Your task to perform on an android device: change your default location settings in chrome Image 0: 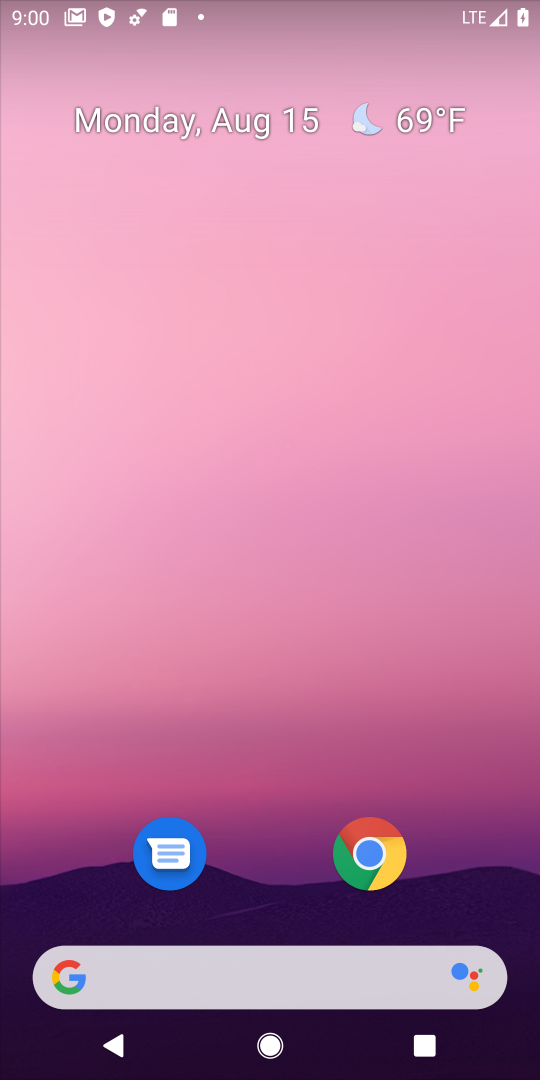
Step 0: press home button
Your task to perform on an android device: change your default location settings in chrome Image 1: 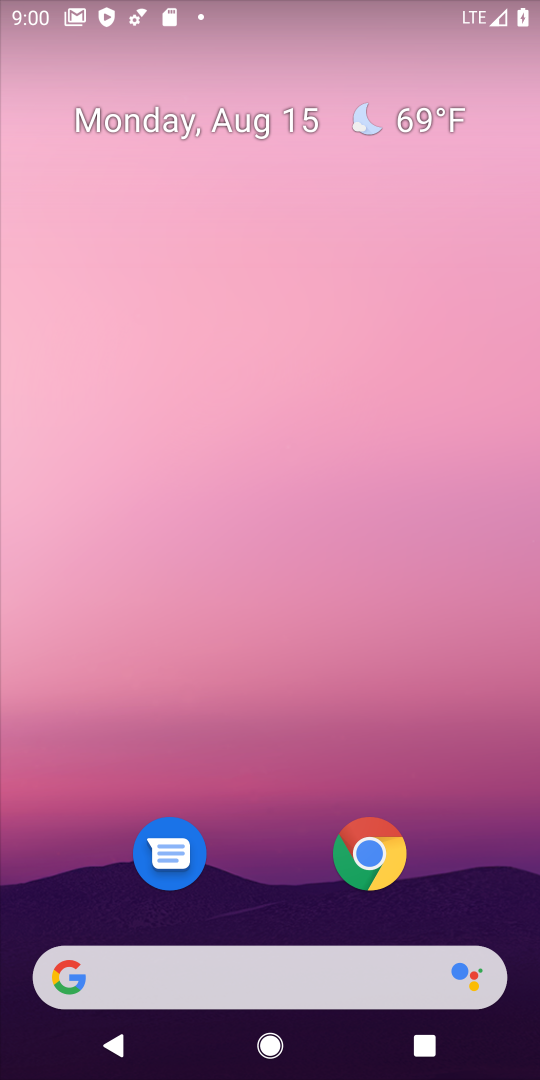
Step 1: press home button
Your task to perform on an android device: change your default location settings in chrome Image 2: 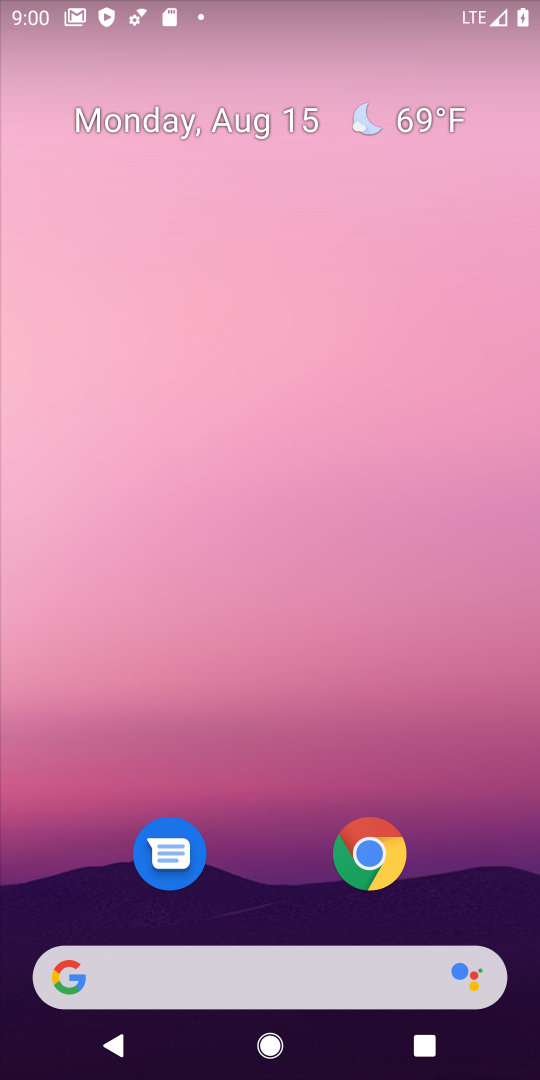
Step 2: drag from (427, 873) to (371, 111)
Your task to perform on an android device: change your default location settings in chrome Image 3: 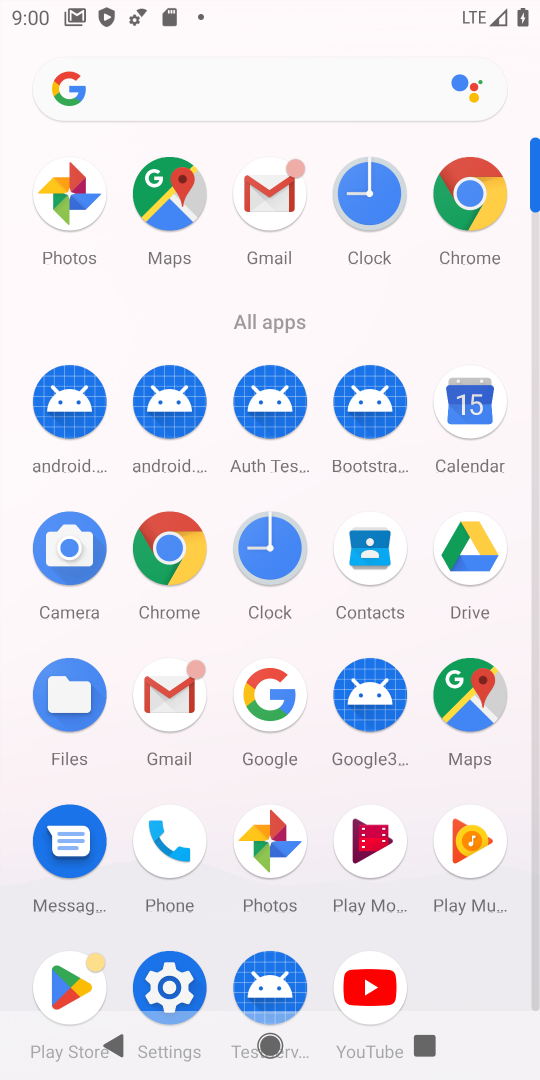
Step 3: click (172, 976)
Your task to perform on an android device: change your default location settings in chrome Image 4: 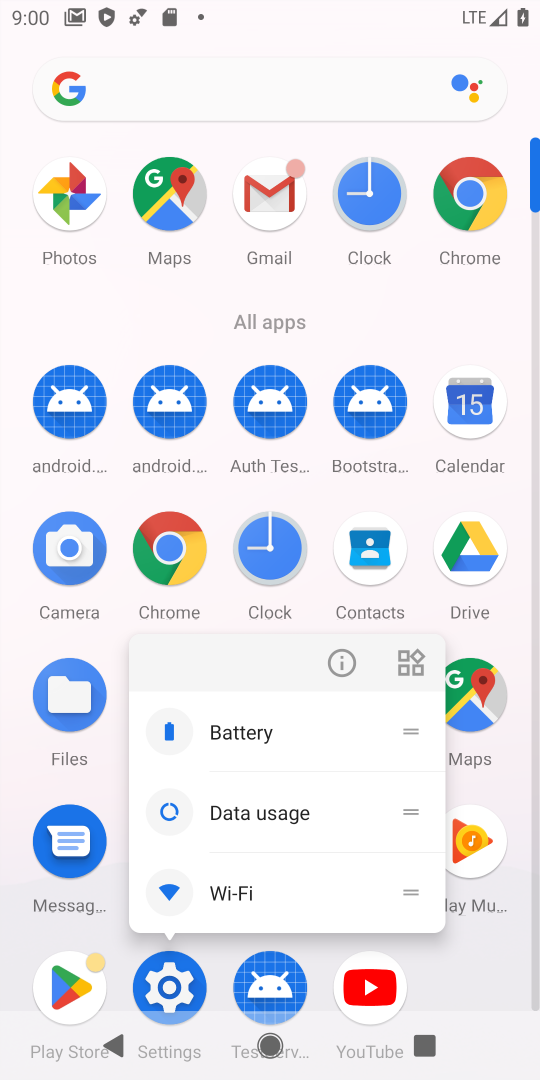
Step 4: click (172, 976)
Your task to perform on an android device: change your default location settings in chrome Image 5: 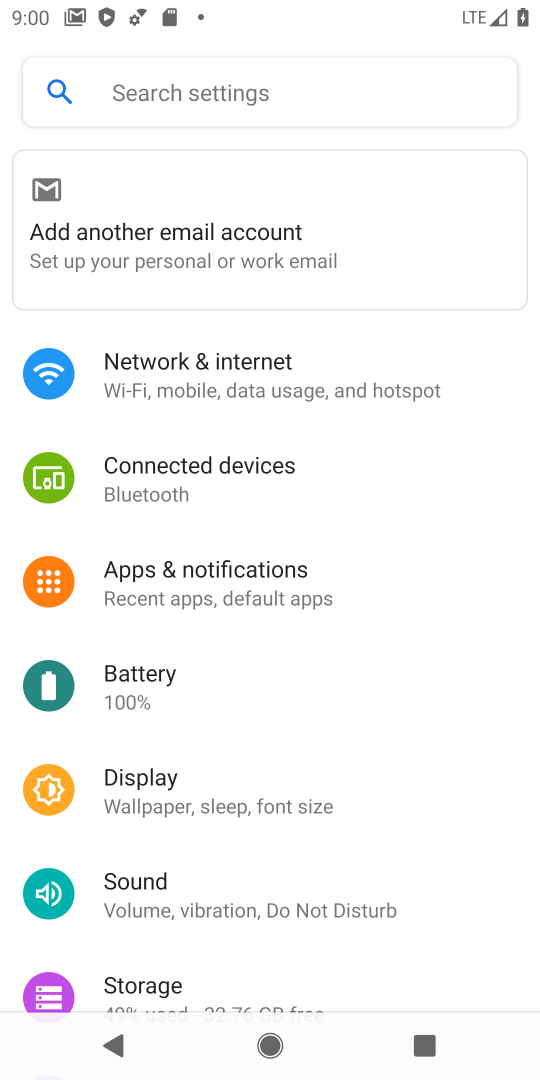
Step 5: drag from (235, 847) to (274, 338)
Your task to perform on an android device: change your default location settings in chrome Image 6: 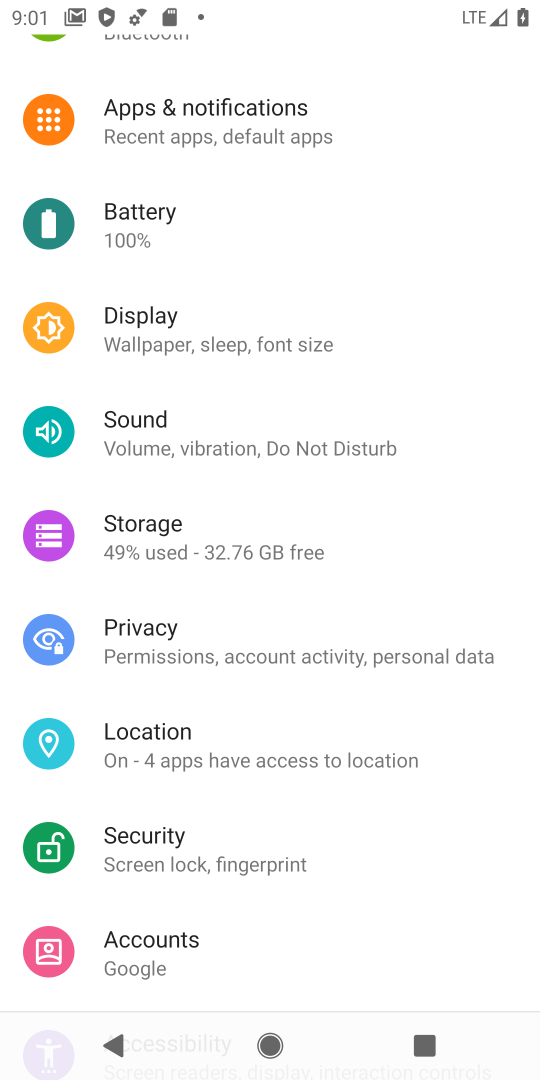
Step 6: press home button
Your task to perform on an android device: change your default location settings in chrome Image 7: 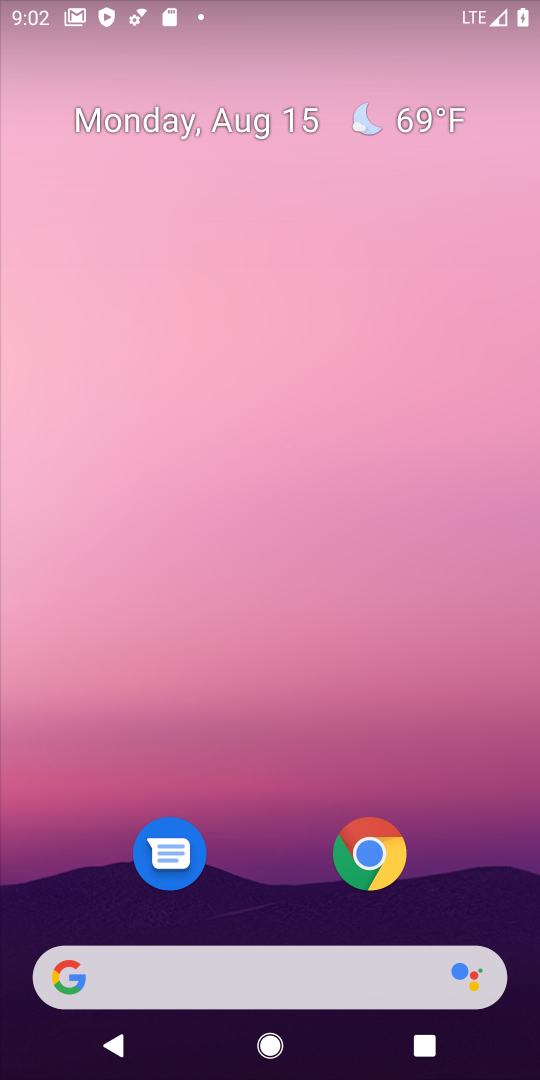
Step 7: drag from (269, 886) to (346, 746)
Your task to perform on an android device: change your default location settings in chrome Image 8: 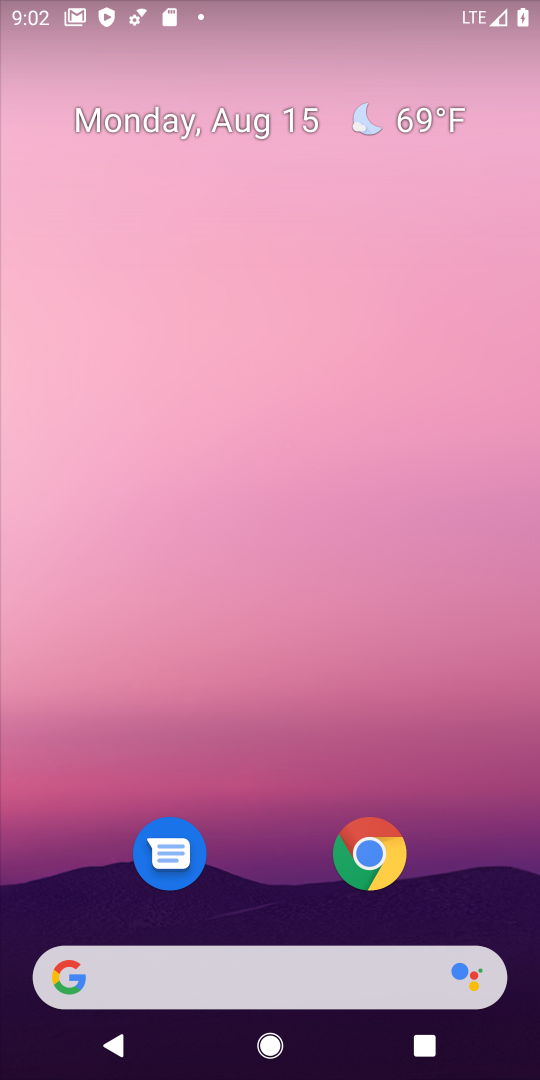
Step 8: click (372, 72)
Your task to perform on an android device: change your default location settings in chrome Image 9: 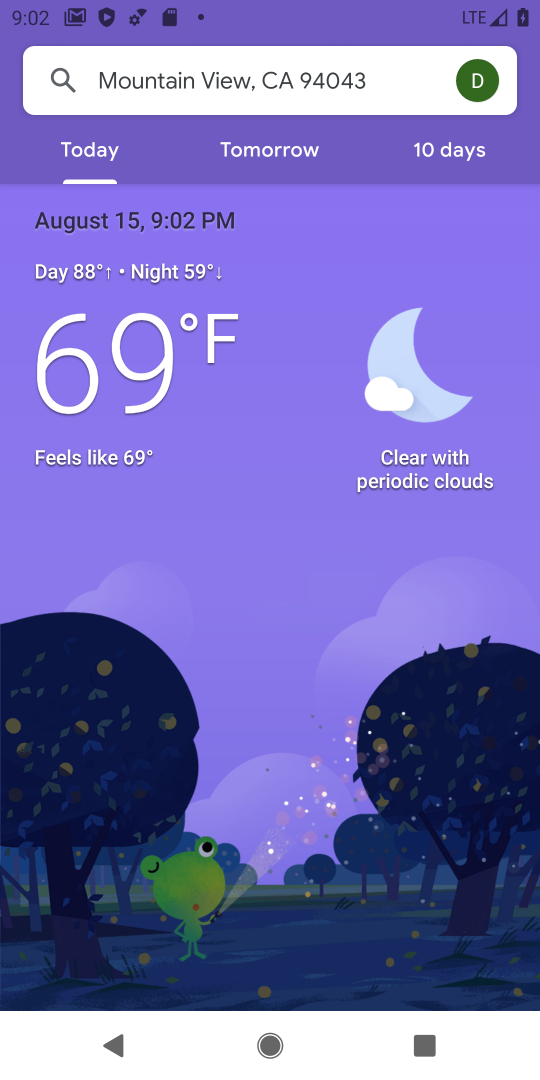
Step 9: press home button
Your task to perform on an android device: change your default location settings in chrome Image 10: 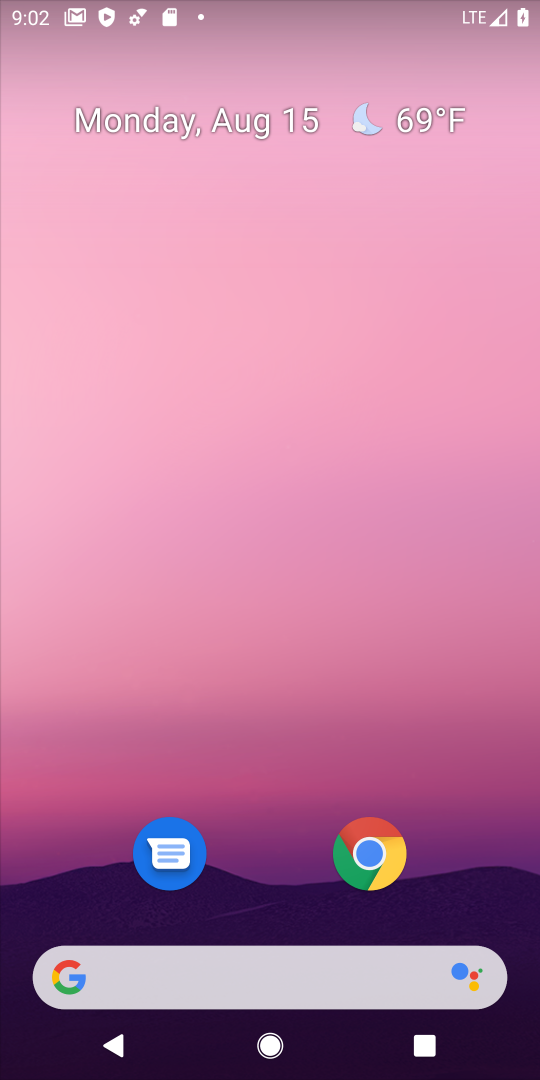
Step 10: click (372, 892)
Your task to perform on an android device: change your default location settings in chrome Image 11: 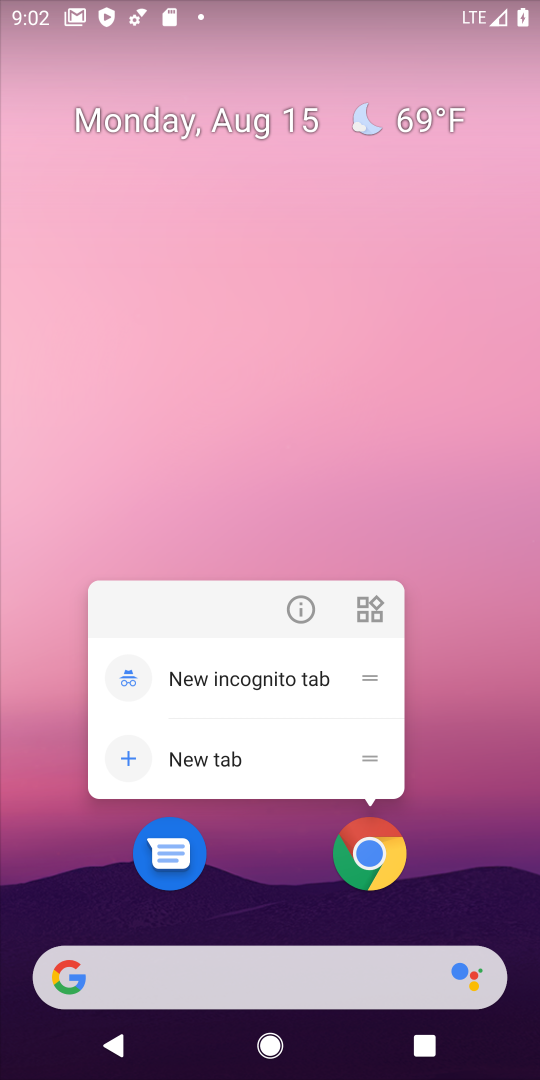
Step 11: click (299, 604)
Your task to perform on an android device: change your default location settings in chrome Image 12: 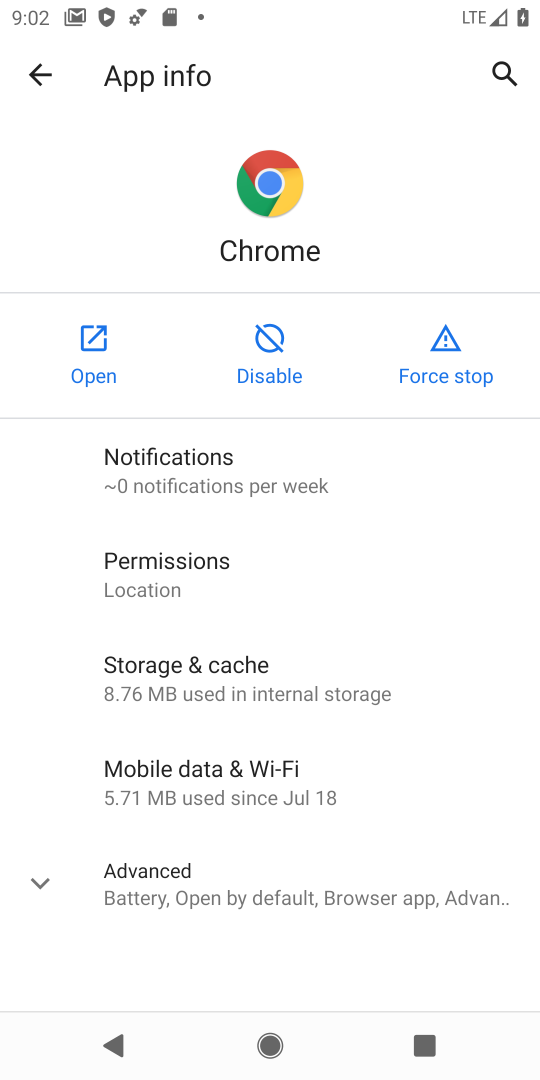
Step 12: click (196, 587)
Your task to perform on an android device: change your default location settings in chrome Image 13: 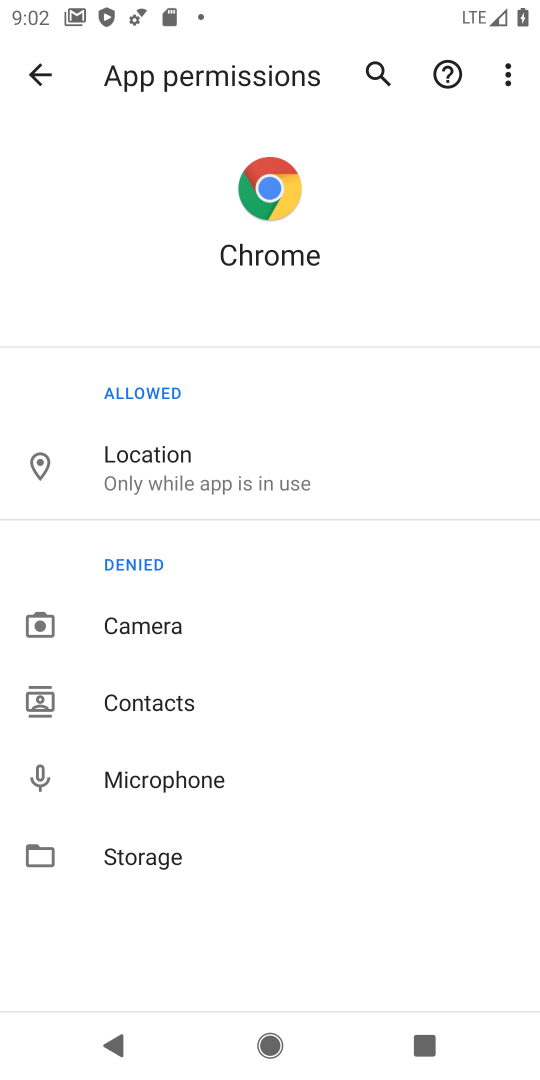
Step 13: click (118, 477)
Your task to perform on an android device: change your default location settings in chrome Image 14: 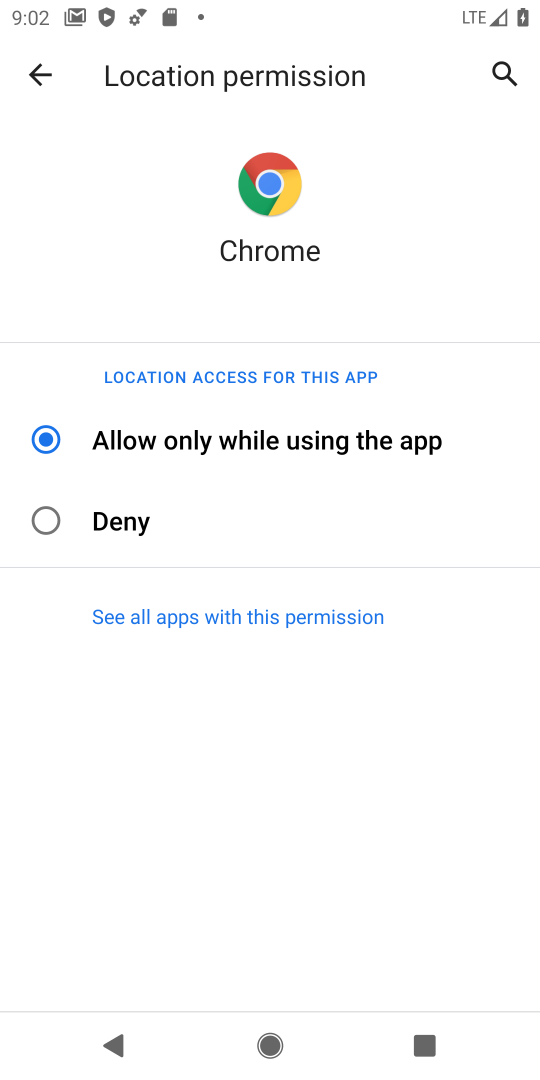
Step 14: click (135, 515)
Your task to perform on an android device: change your default location settings in chrome Image 15: 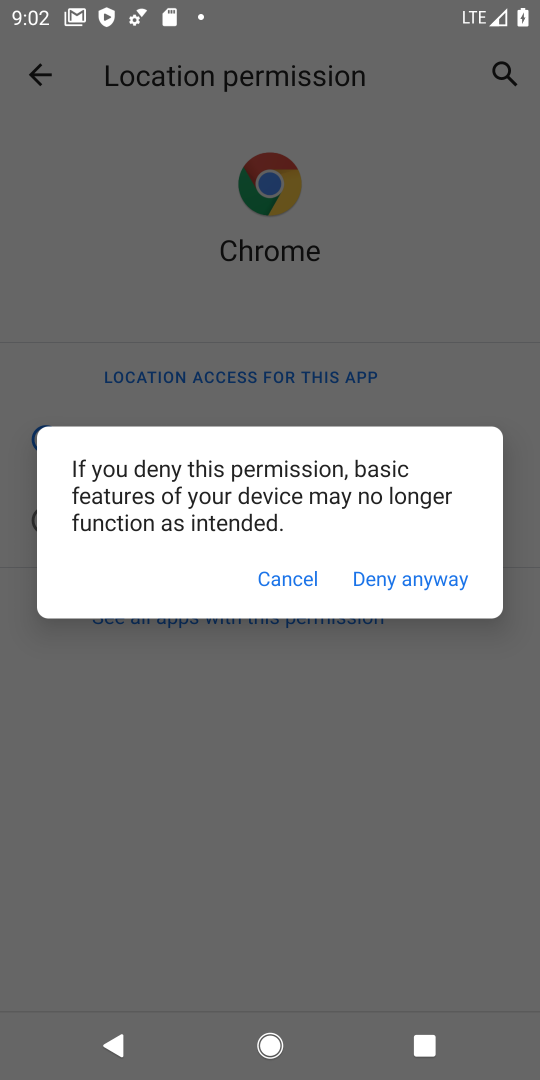
Step 15: click (446, 560)
Your task to perform on an android device: change your default location settings in chrome Image 16: 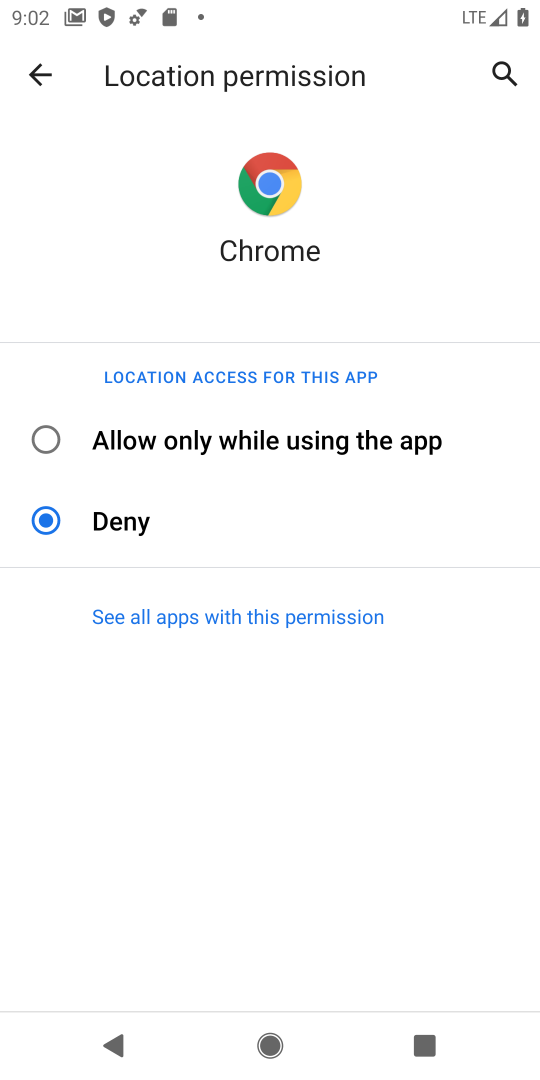
Step 16: task complete